Your task to perform on an android device: turn off wifi Image 0: 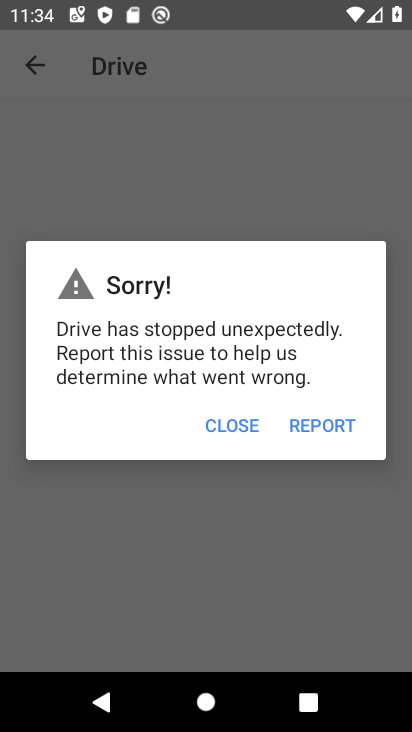
Step 0: press home button
Your task to perform on an android device: turn off wifi Image 1: 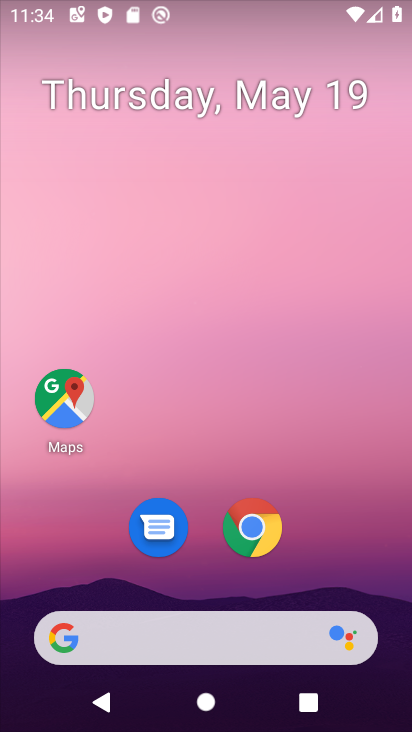
Step 1: drag from (204, 560) to (234, 24)
Your task to perform on an android device: turn off wifi Image 2: 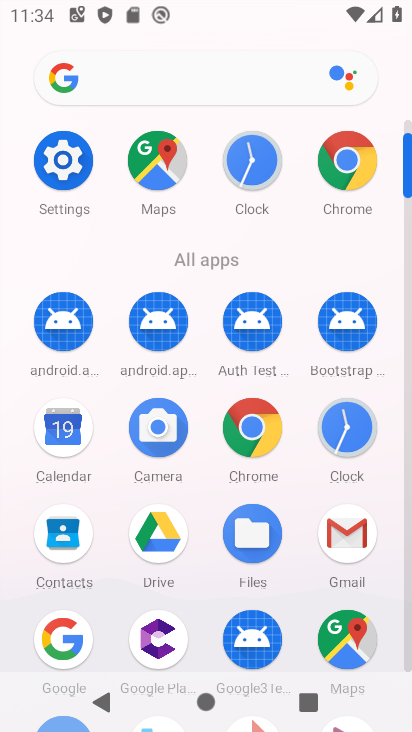
Step 2: click (272, 21)
Your task to perform on an android device: turn off wifi Image 3: 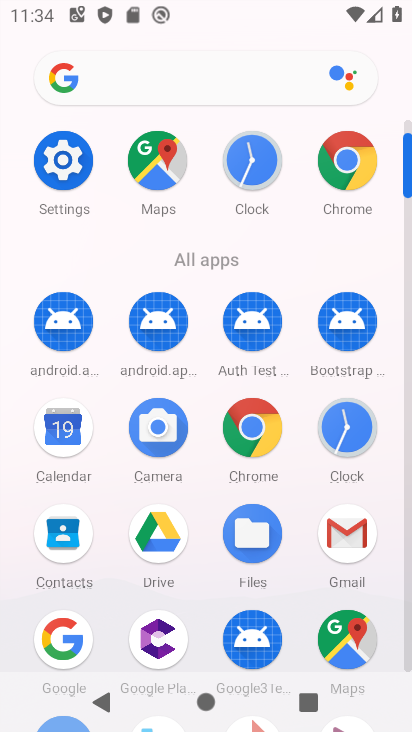
Step 3: click (56, 172)
Your task to perform on an android device: turn off wifi Image 4: 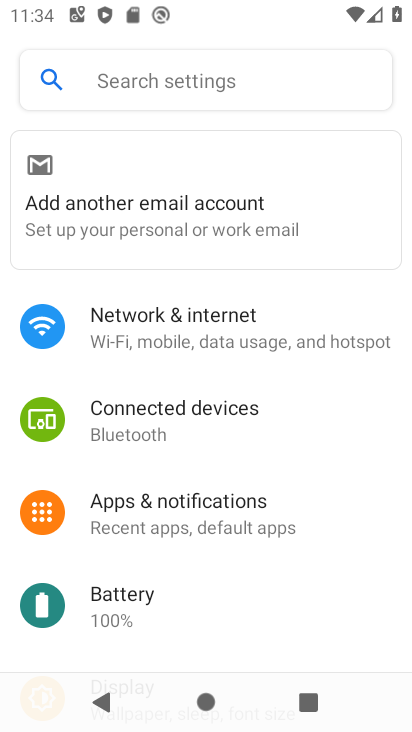
Step 4: click (201, 351)
Your task to perform on an android device: turn off wifi Image 5: 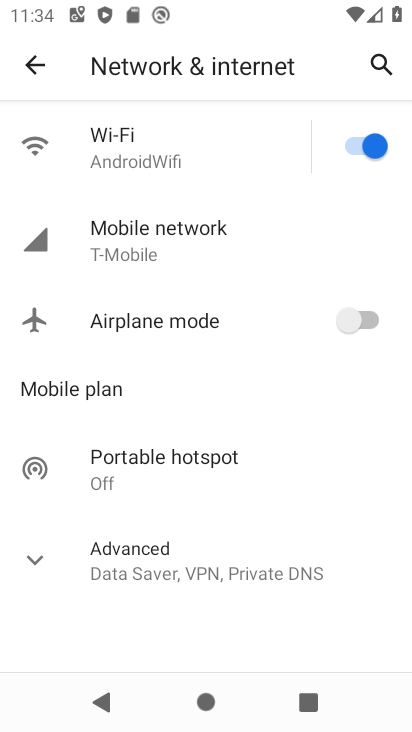
Step 5: click (352, 143)
Your task to perform on an android device: turn off wifi Image 6: 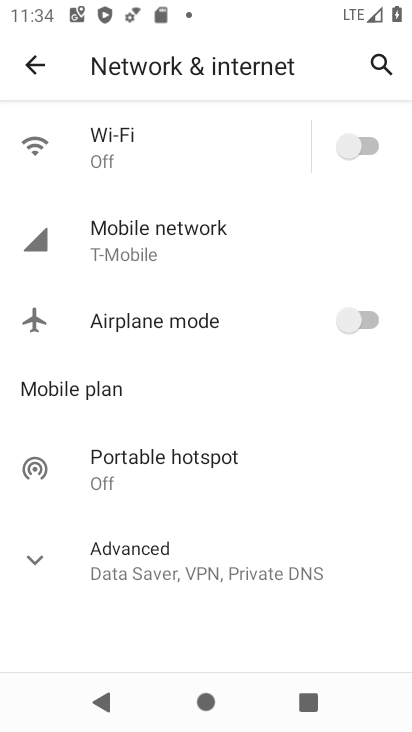
Step 6: task complete